Your task to perform on an android device: change timer sound Image 0: 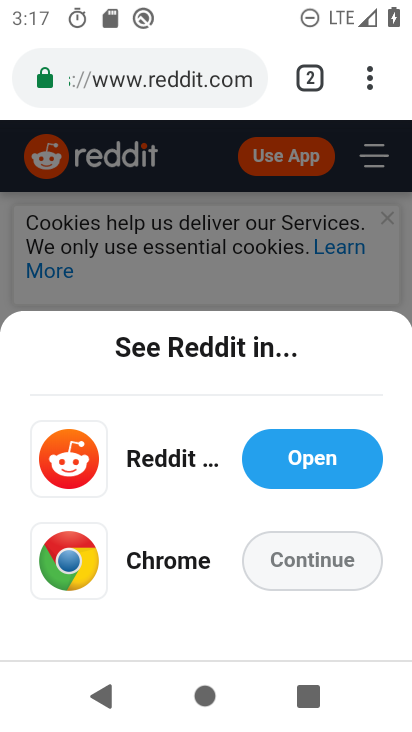
Step 0: press back button
Your task to perform on an android device: change timer sound Image 1: 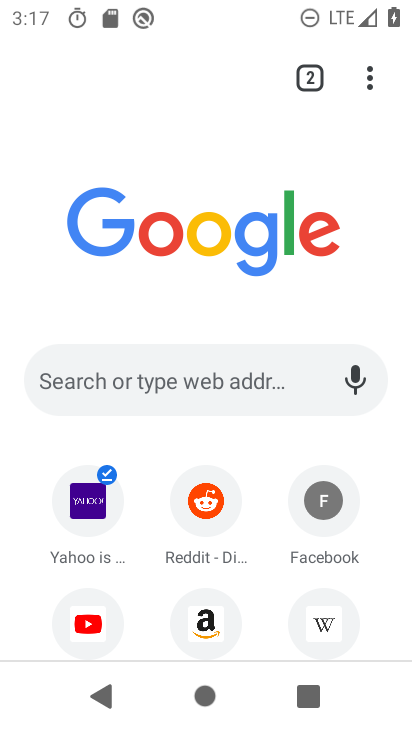
Step 1: press back button
Your task to perform on an android device: change timer sound Image 2: 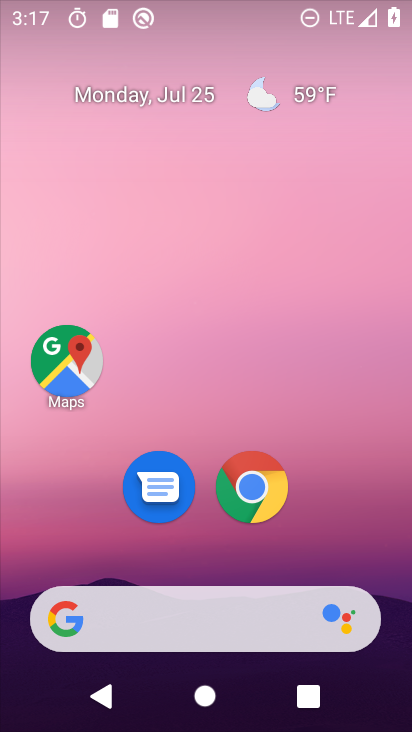
Step 2: drag from (174, 543) to (266, 13)
Your task to perform on an android device: change timer sound Image 3: 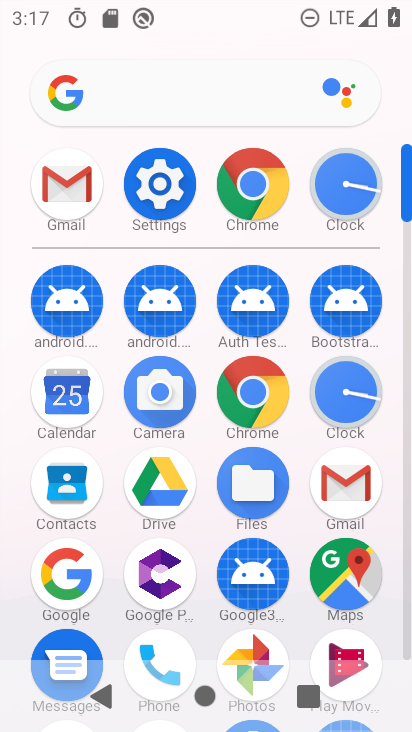
Step 3: click (355, 388)
Your task to perform on an android device: change timer sound Image 4: 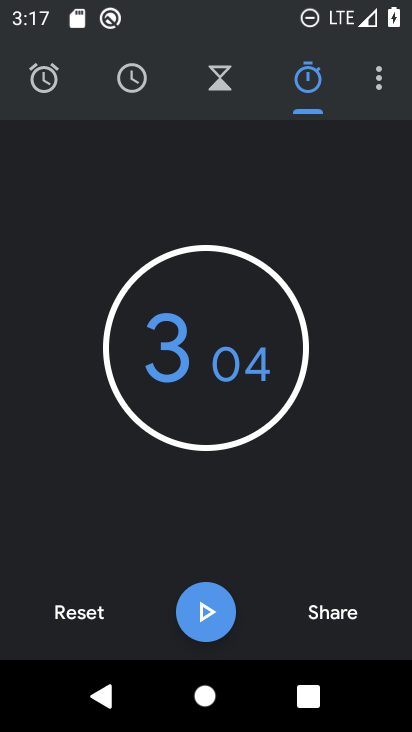
Step 4: click (371, 78)
Your task to perform on an android device: change timer sound Image 5: 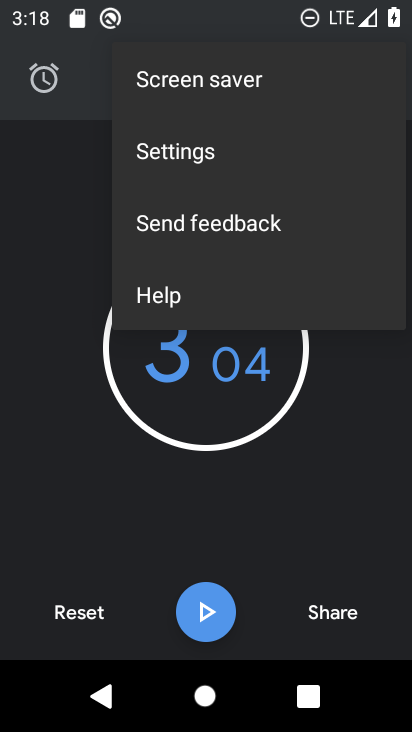
Step 5: click (133, 132)
Your task to perform on an android device: change timer sound Image 6: 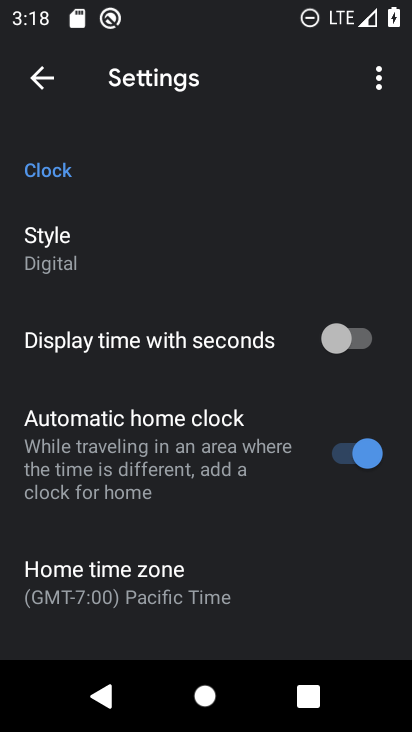
Step 6: drag from (120, 572) to (233, 32)
Your task to perform on an android device: change timer sound Image 7: 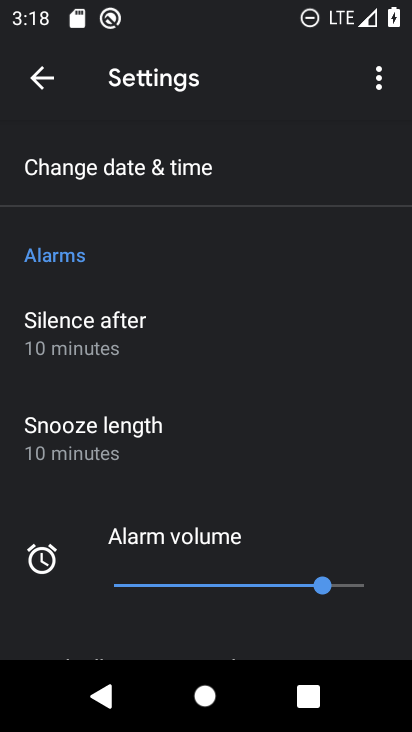
Step 7: drag from (168, 476) to (279, 54)
Your task to perform on an android device: change timer sound Image 8: 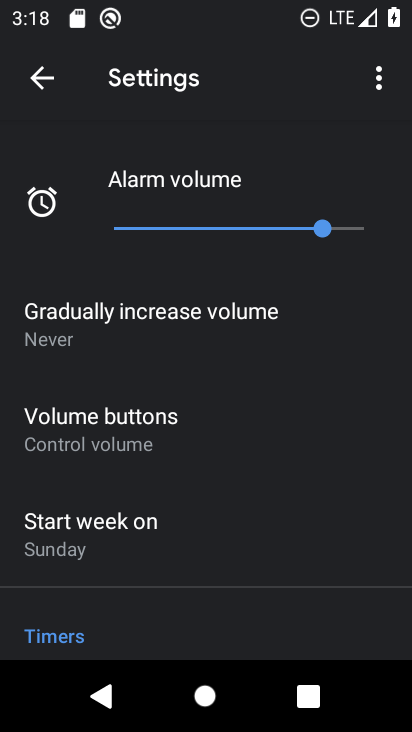
Step 8: drag from (240, 568) to (310, 151)
Your task to perform on an android device: change timer sound Image 9: 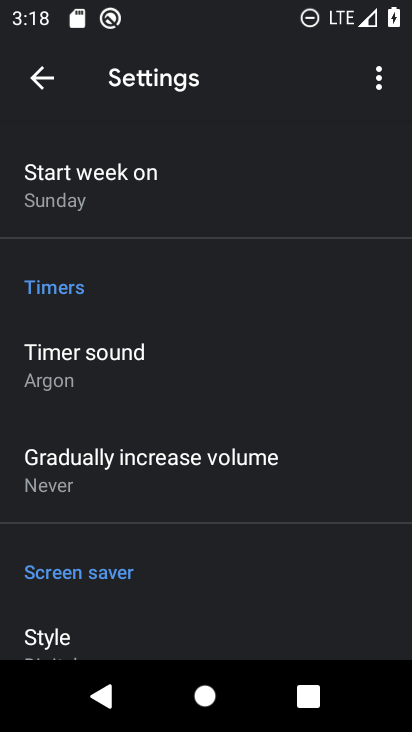
Step 9: drag from (97, 528) to (129, 350)
Your task to perform on an android device: change timer sound Image 10: 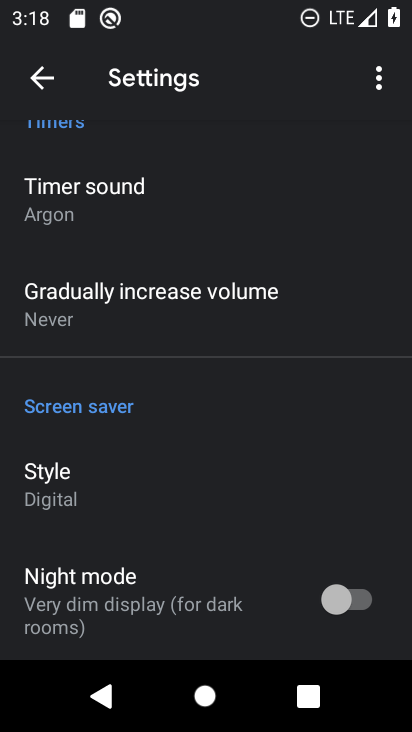
Step 10: click (65, 209)
Your task to perform on an android device: change timer sound Image 11: 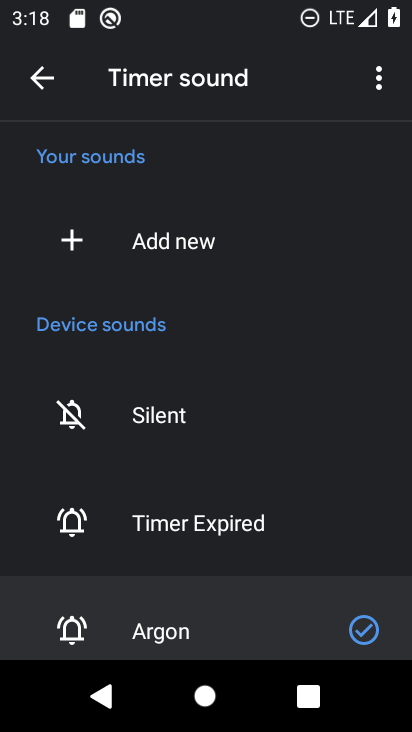
Step 11: drag from (235, 482) to (341, 118)
Your task to perform on an android device: change timer sound Image 12: 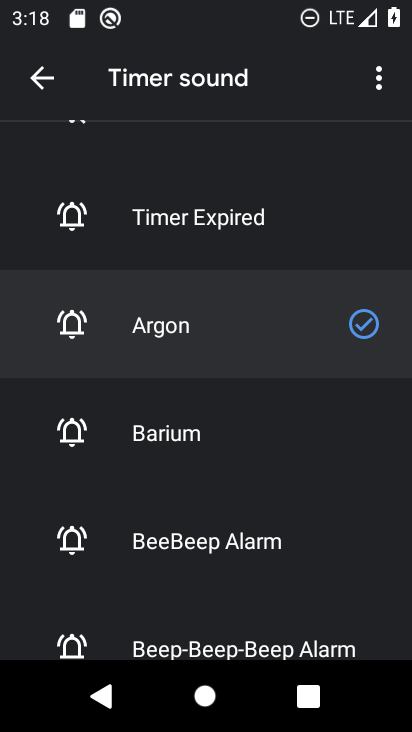
Step 12: click (186, 431)
Your task to perform on an android device: change timer sound Image 13: 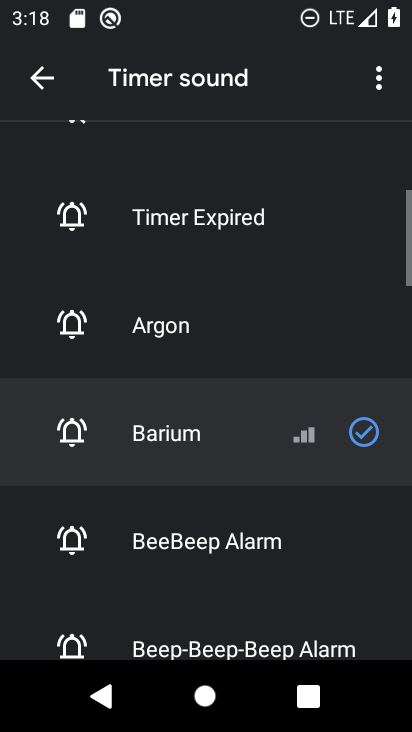
Step 13: task complete